Your task to perform on an android device: Go to Google Image 0: 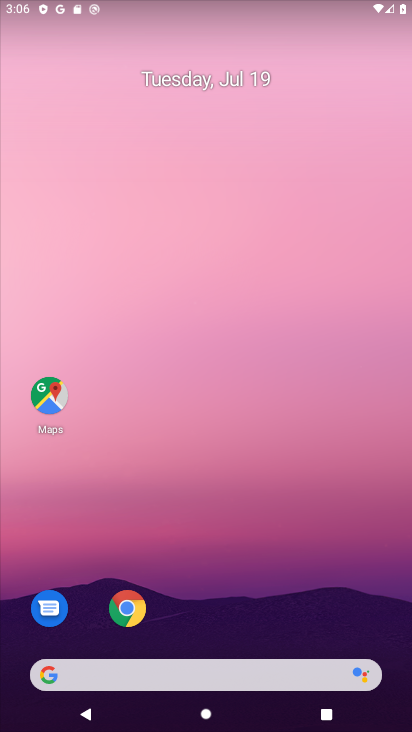
Step 0: drag from (223, 622) to (266, 222)
Your task to perform on an android device: Go to Google Image 1: 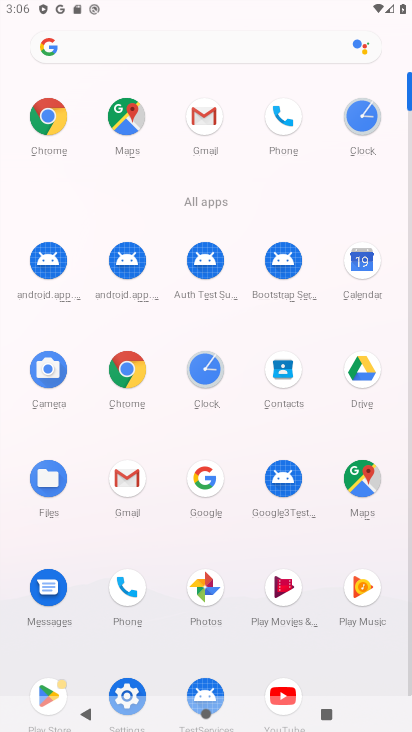
Step 1: click (211, 466)
Your task to perform on an android device: Go to Google Image 2: 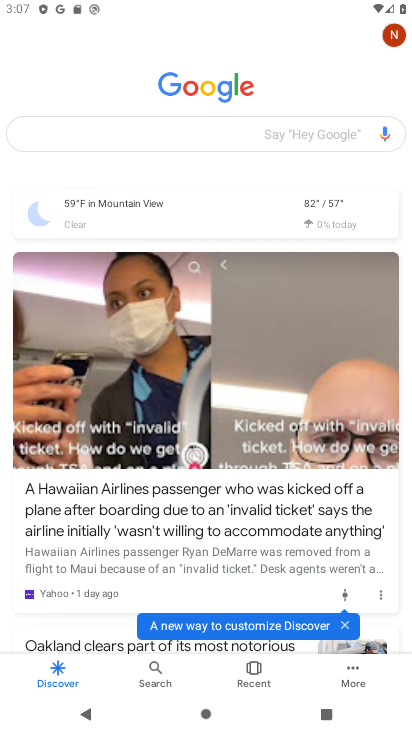
Step 2: task complete